Your task to perform on an android device: Open a new private window in Chrome Image 0: 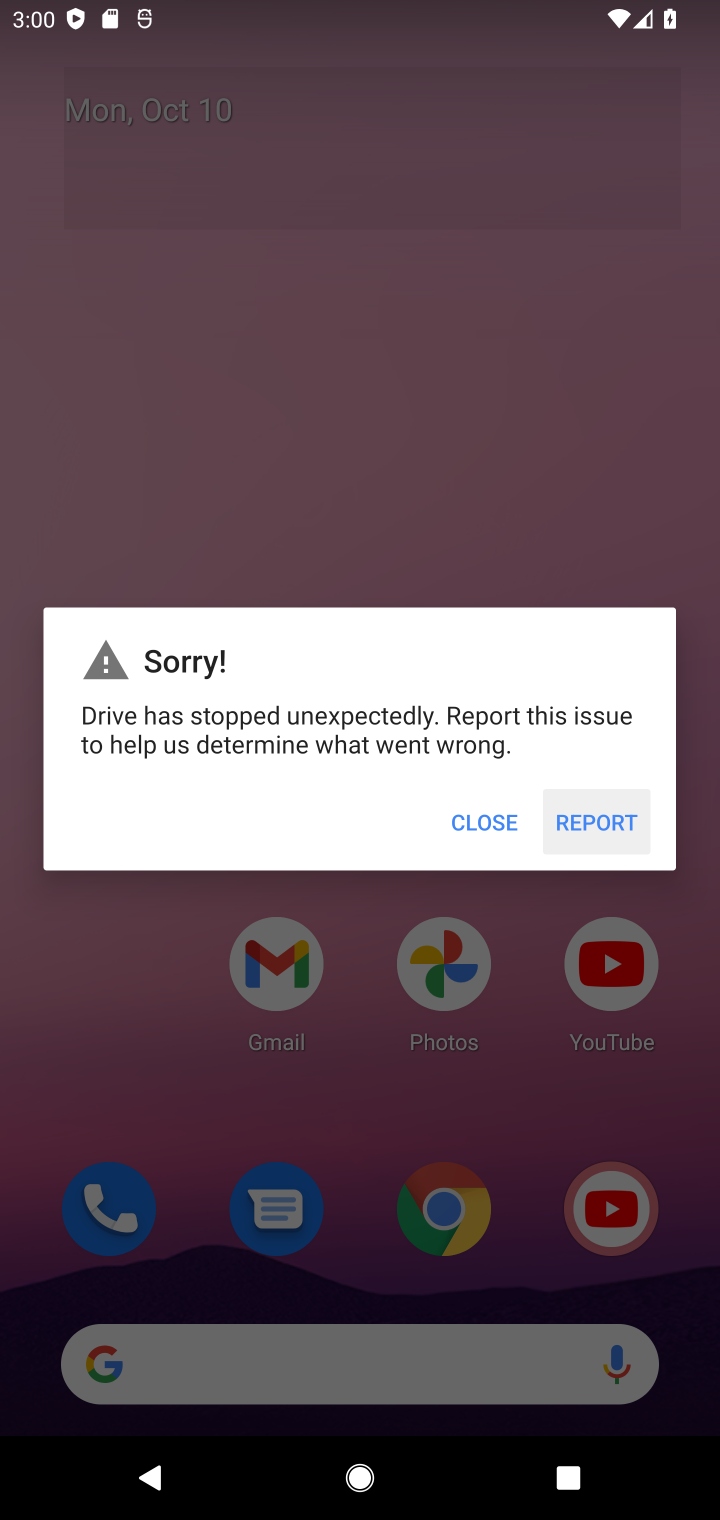
Step 0: click (470, 825)
Your task to perform on an android device: Open a new private window in Chrome Image 1: 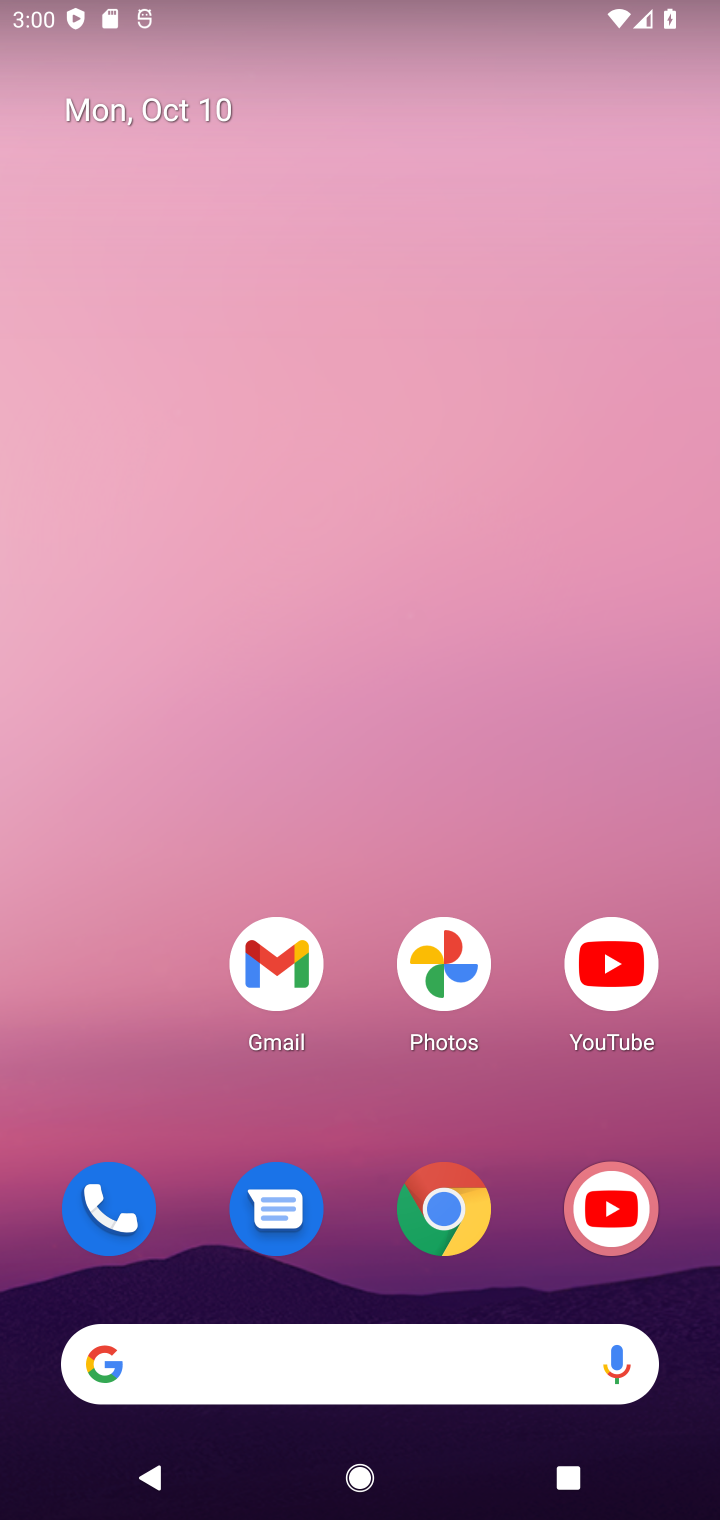
Step 1: click (483, 1206)
Your task to perform on an android device: Open a new private window in Chrome Image 2: 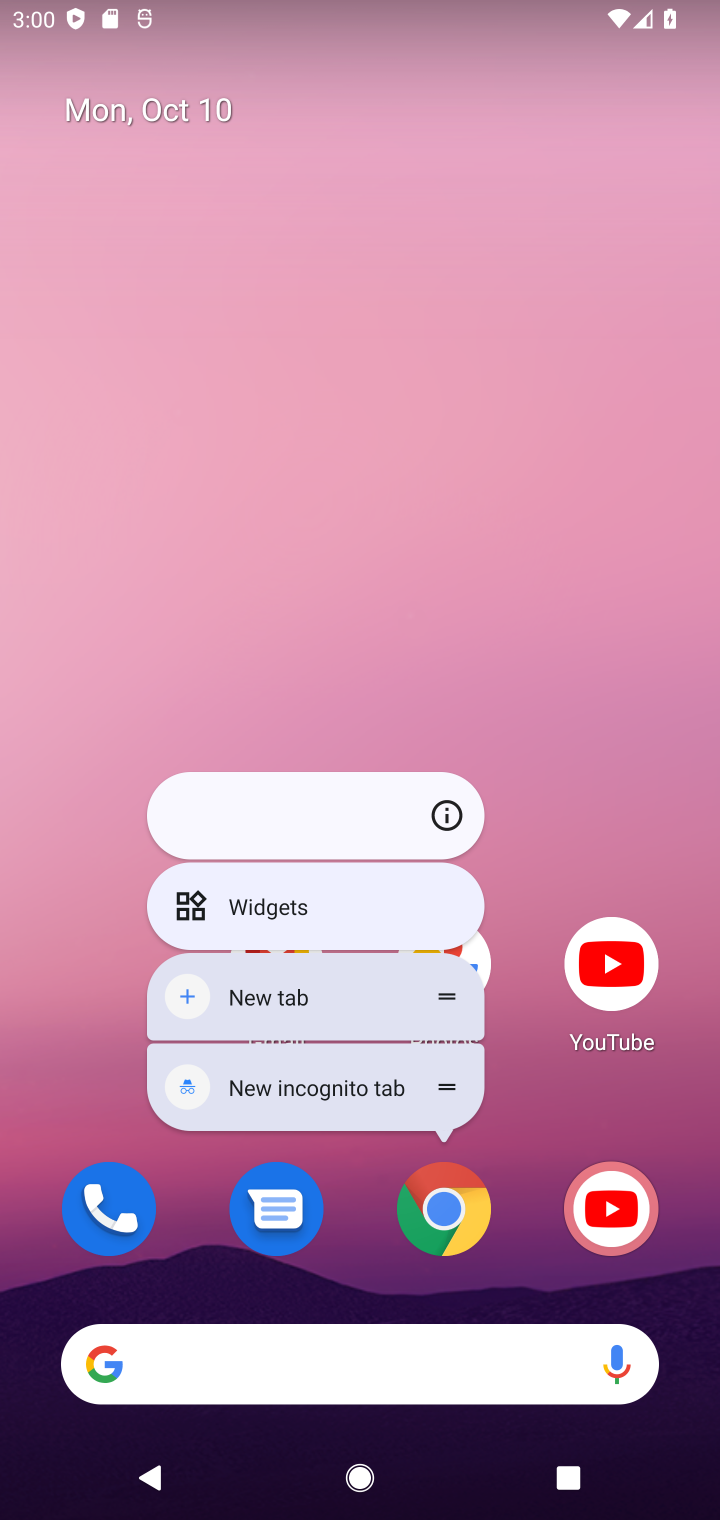
Step 2: click (483, 1206)
Your task to perform on an android device: Open a new private window in Chrome Image 3: 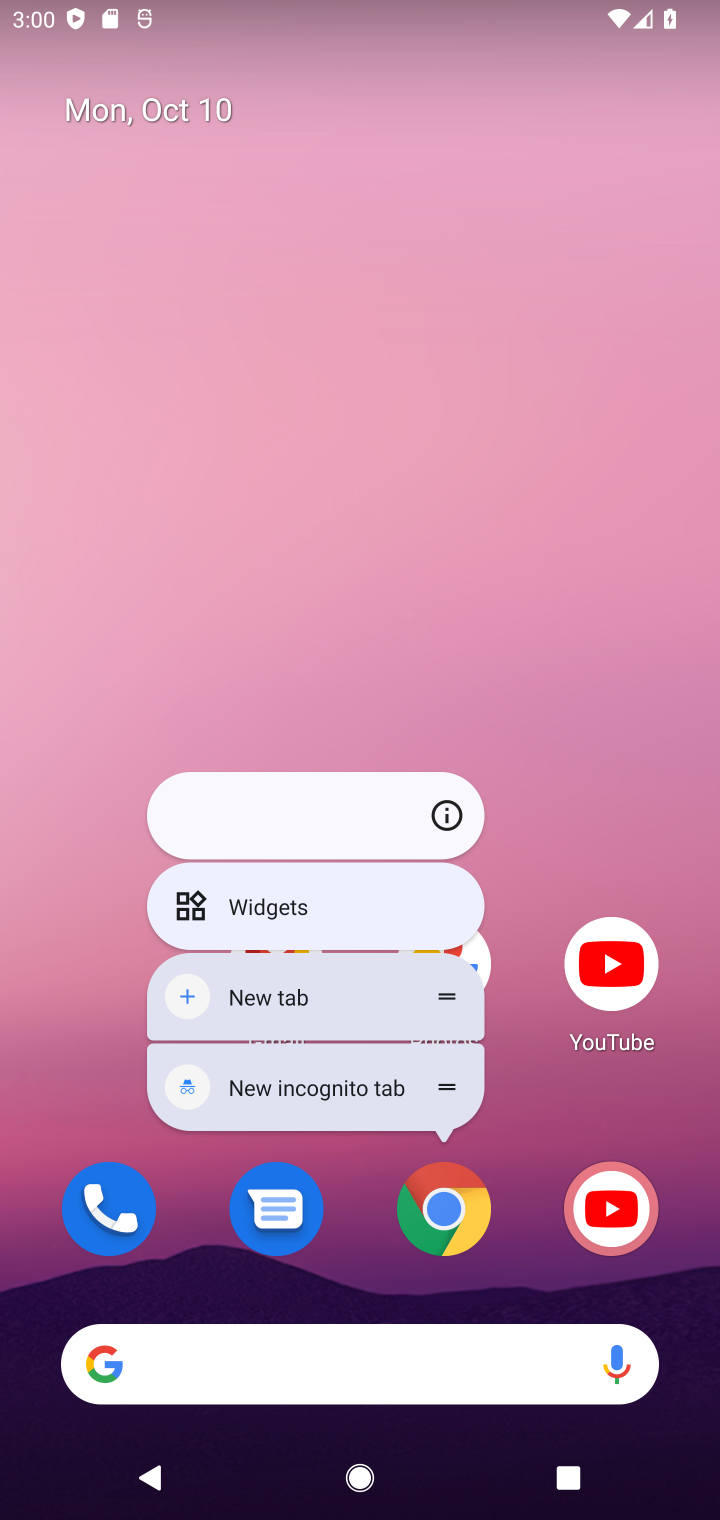
Step 3: click (483, 1206)
Your task to perform on an android device: Open a new private window in Chrome Image 4: 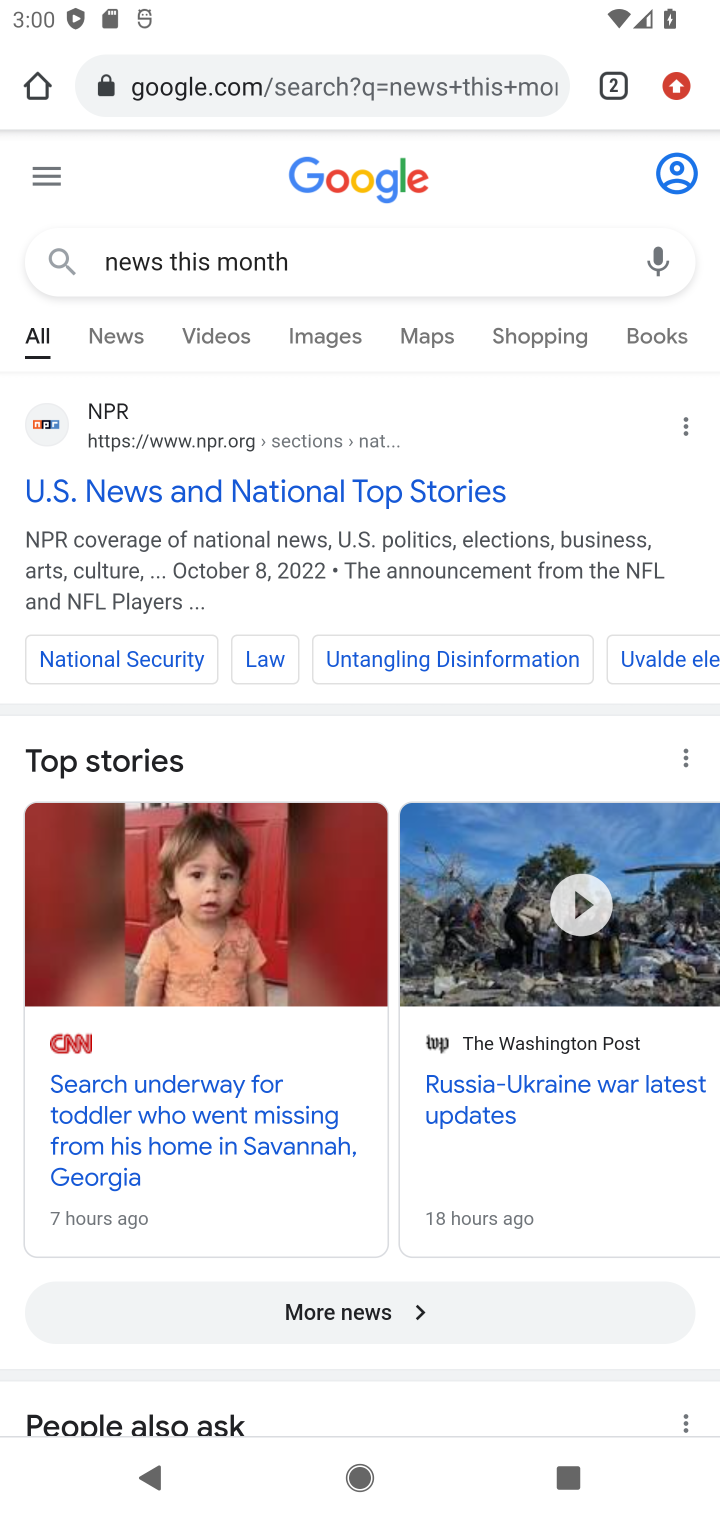
Step 4: click (688, 81)
Your task to perform on an android device: Open a new private window in Chrome Image 5: 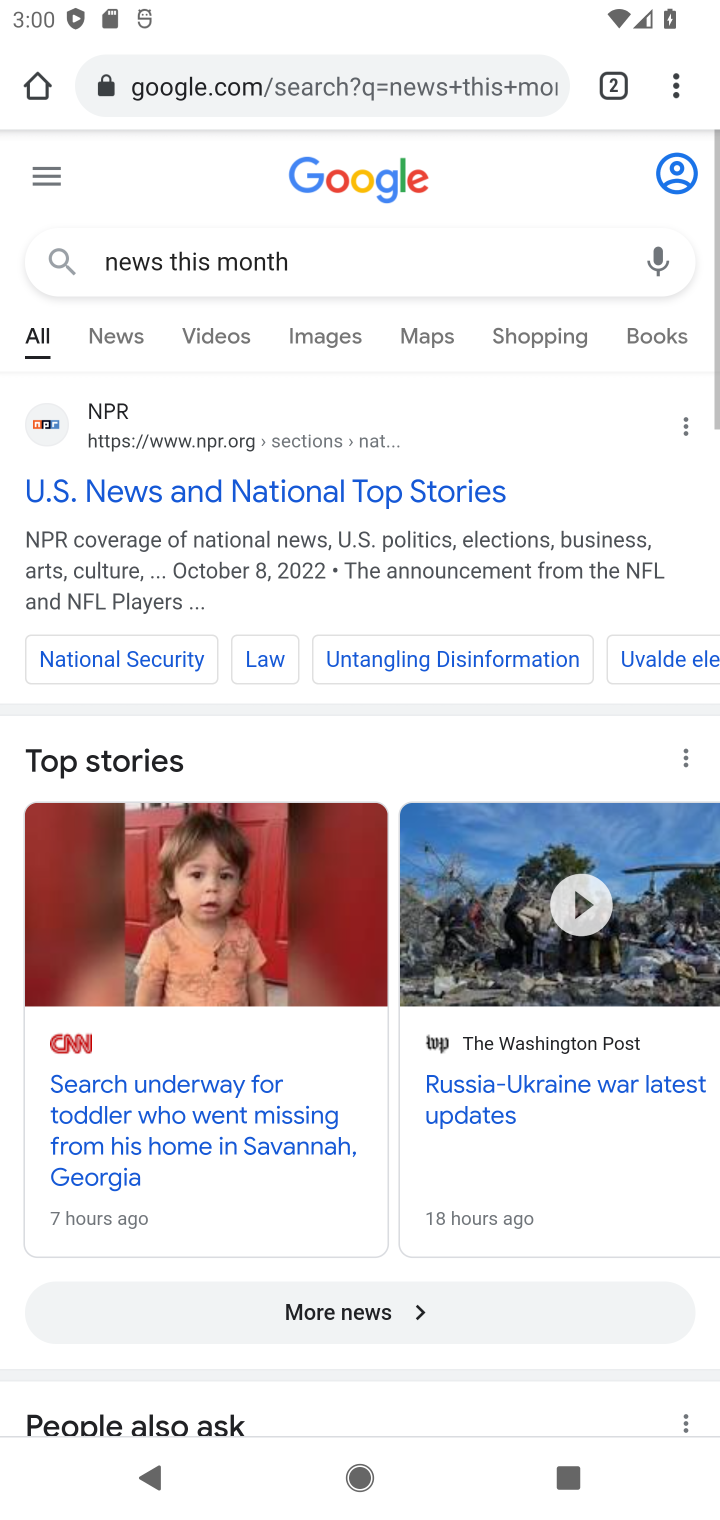
Step 5: task complete